Your task to perform on an android device: Search for "razer naga" on costco, select the first entry, and add it to the cart. Image 0: 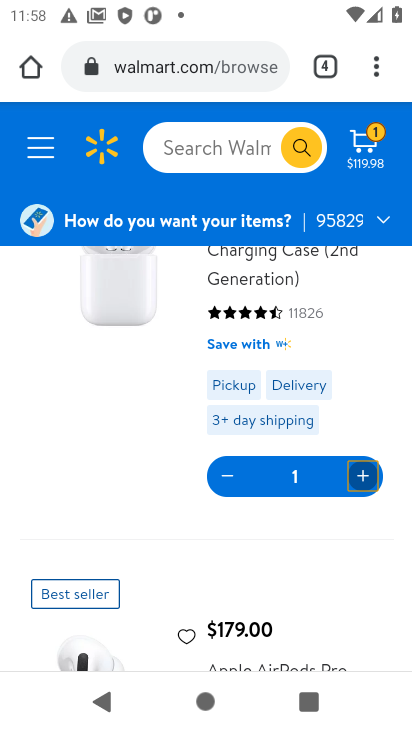
Step 0: click (155, 66)
Your task to perform on an android device: Search for "razer naga" on costco, select the first entry, and add it to the cart. Image 1: 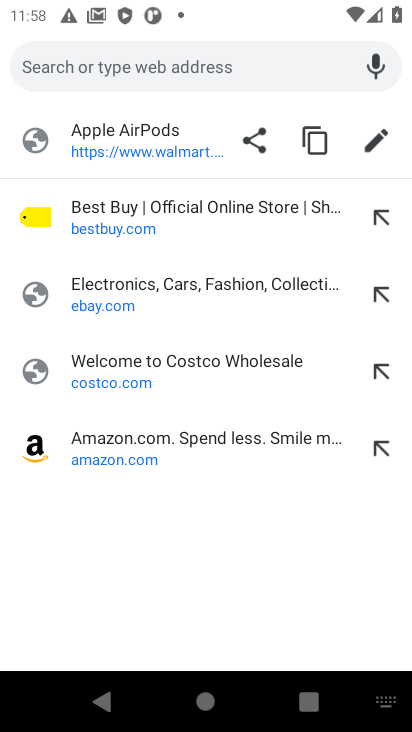
Step 1: click (95, 380)
Your task to perform on an android device: Search for "razer naga" on costco, select the first entry, and add it to the cart. Image 2: 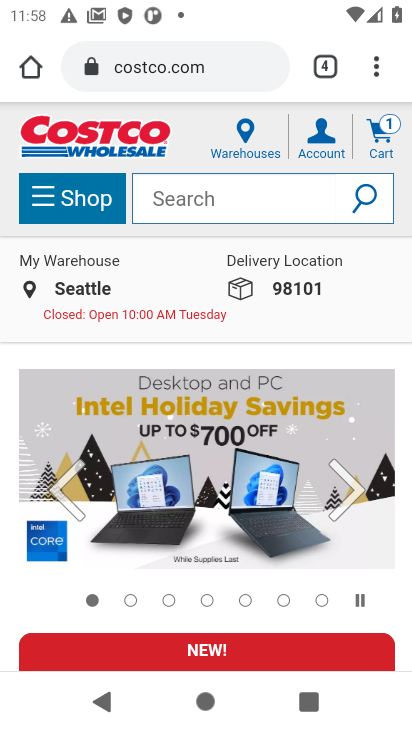
Step 2: click (159, 190)
Your task to perform on an android device: Search for "razer naga" on costco, select the first entry, and add it to the cart. Image 3: 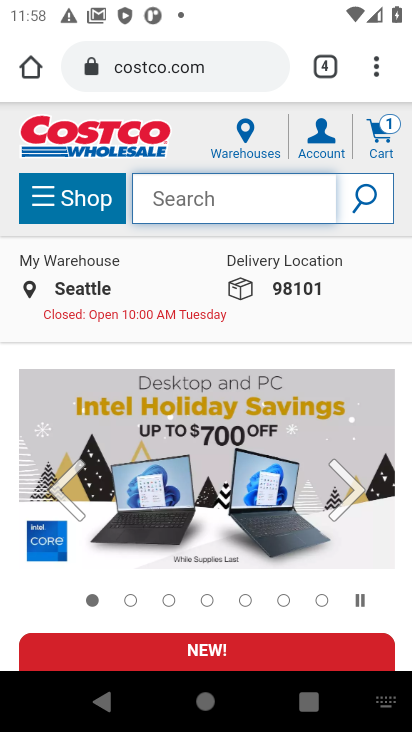
Step 3: type "razer naga"
Your task to perform on an android device: Search for "razer naga" on costco, select the first entry, and add it to the cart. Image 4: 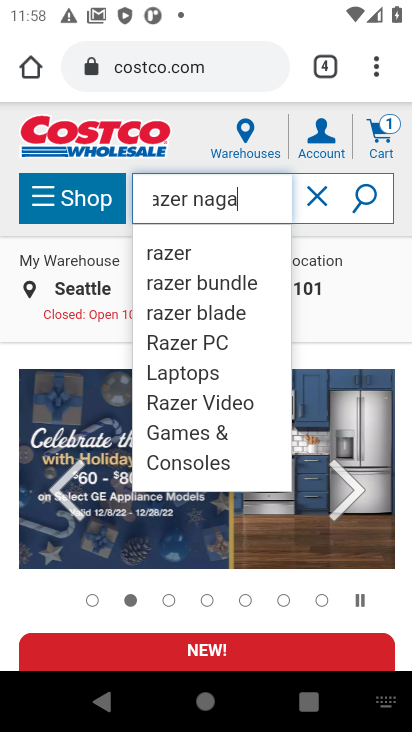
Step 4: click (361, 199)
Your task to perform on an android device: Search for "razer naga" on costco, select the first entry, and add it to the cart. Image 5: 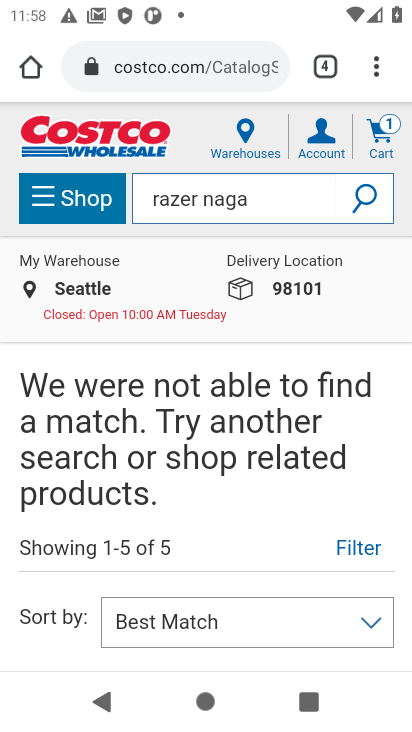
Step 5: task complete